Your task to perform on an android device: turn smart compose on in the gmail app Image 0: 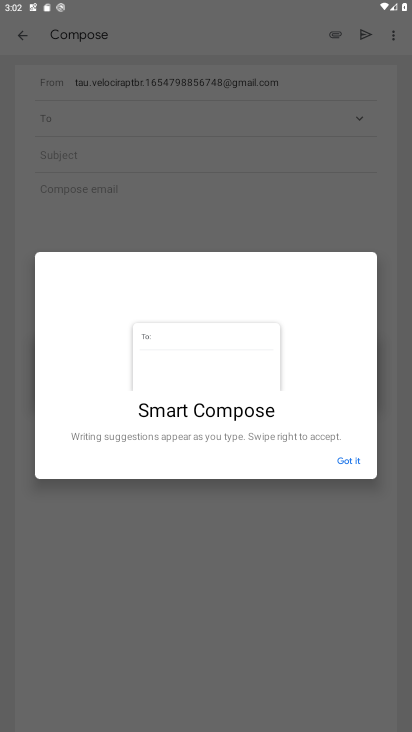
Step 0: press home button
Your task to perform on an android device: turn smart compose on in the gmail app Image 1: 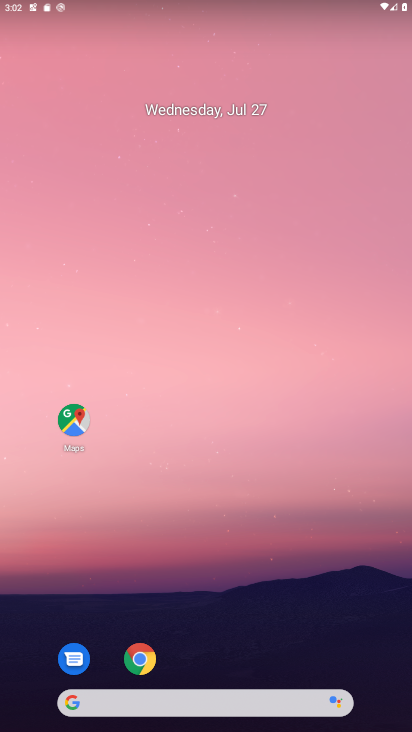
Step 1: drag from (320, 573) to (243, 10)
Your task to perform on an android device: turn smart compose on in the gmail app Image 2: 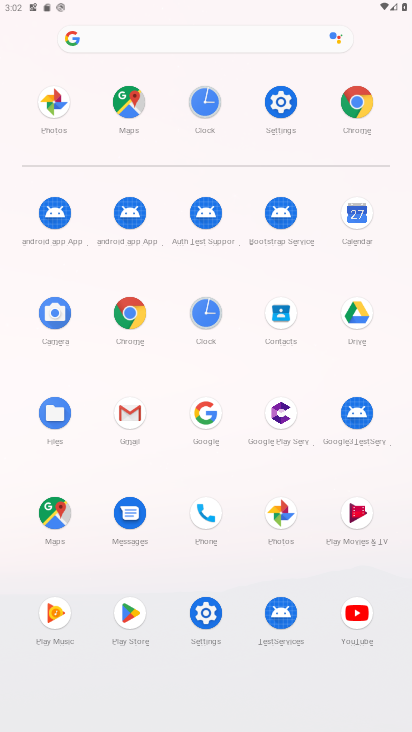
Step 2: click (121, 423)
Your task to perform on an android device: turn smart compose on in the gmail app Image 3: 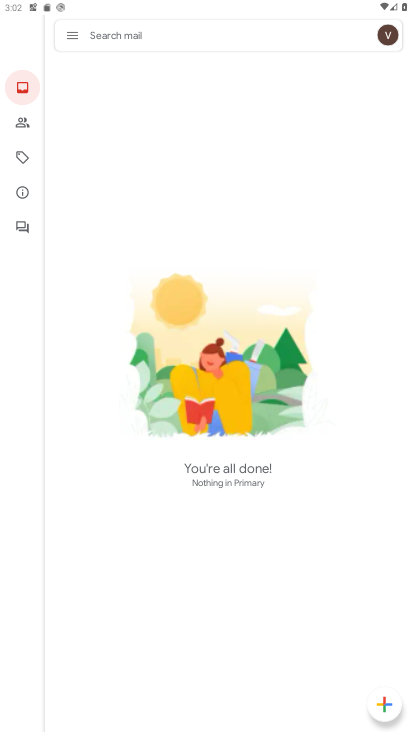
Step 3: click (64, 28)
Your task to perform on an android device: turn smart compose on in the gmail app Image 4: 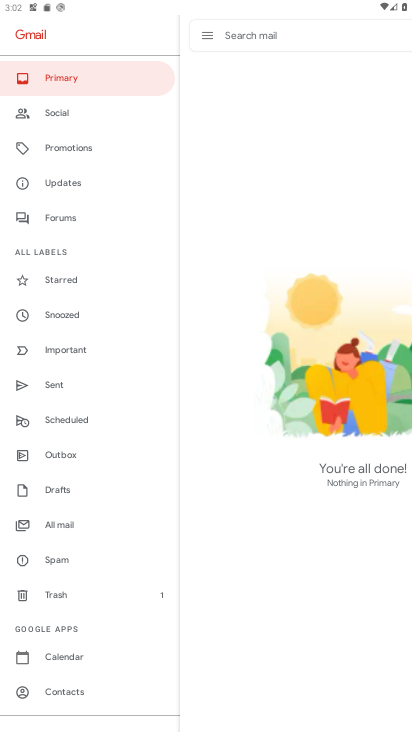
Step 4: drag from (47, 546) to (3, 186)
Your task to perform on an android device: turn smart compose on in the gmail app Image 5: 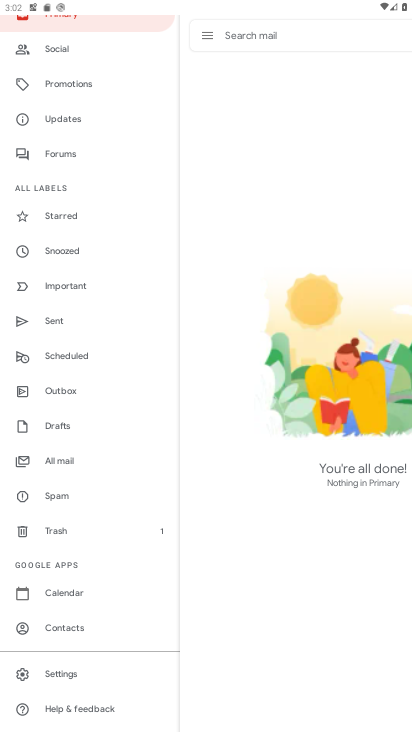
Step 5: click (49, 664)
Your task to perform on an android device: turn smart compose on in the gmail app Image 6: 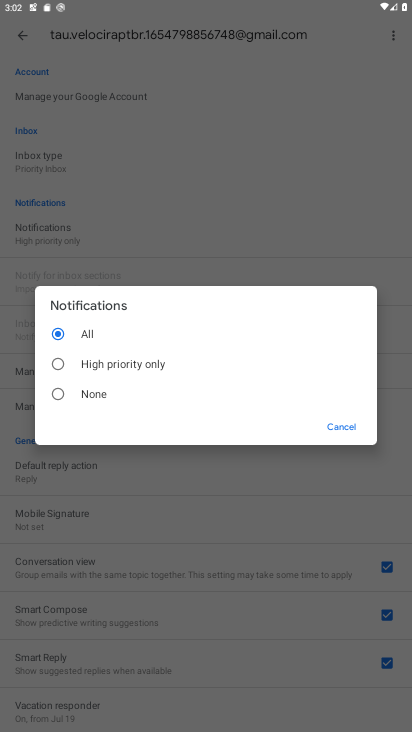
Step 6: click (351, 424)
Your task to perform on an android device: turn smart compose on in the gmail app Image 7: 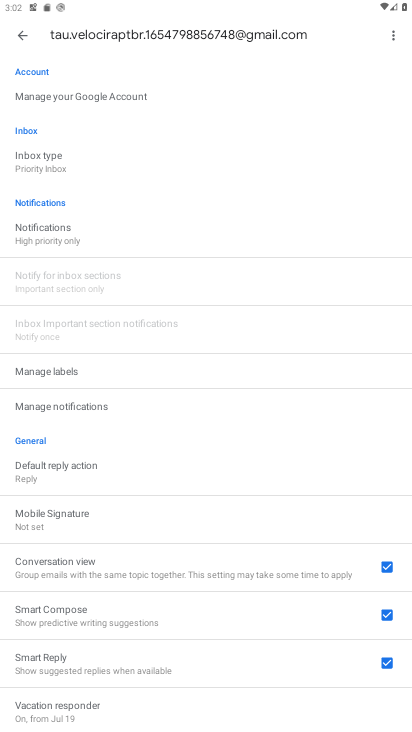
Step 7: task complete